Your task to perform on an android device: Go to internet settings Image 0: 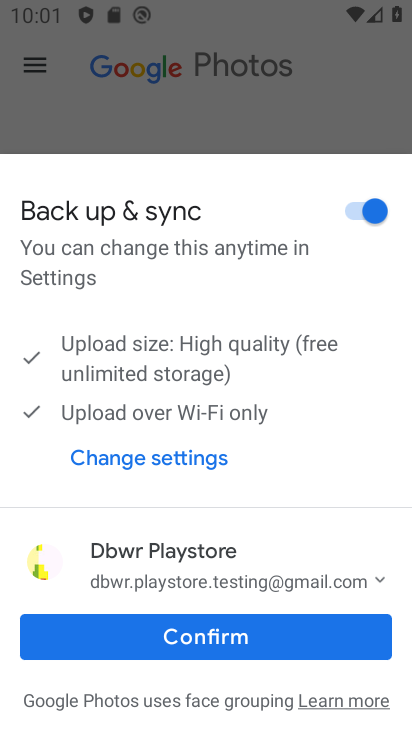
Step 0: press home button
Your task to perform on an android device: Go to internet settings Image 1: 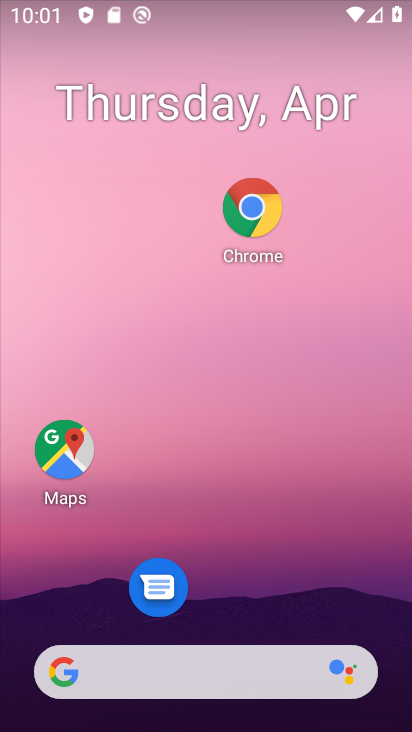
Step 1: drag from (241, 346) to (241, 41)
Your task to perform on an android device: Go to internet settings Image 2: 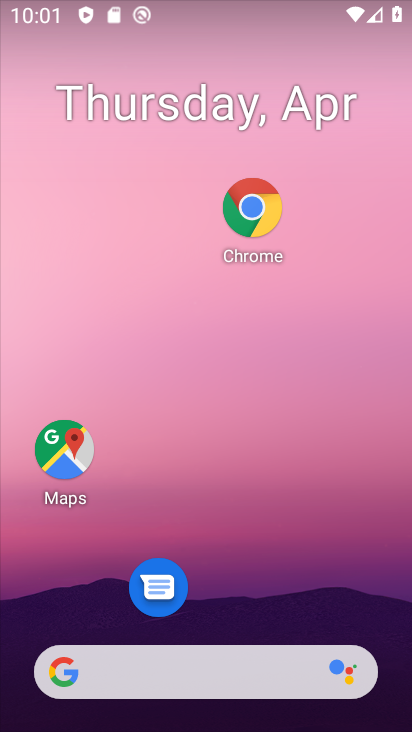
Step 2: drag from (213, 578) to (243, 0)
Your task to perform on an android device: Go to internet settings Image 3: 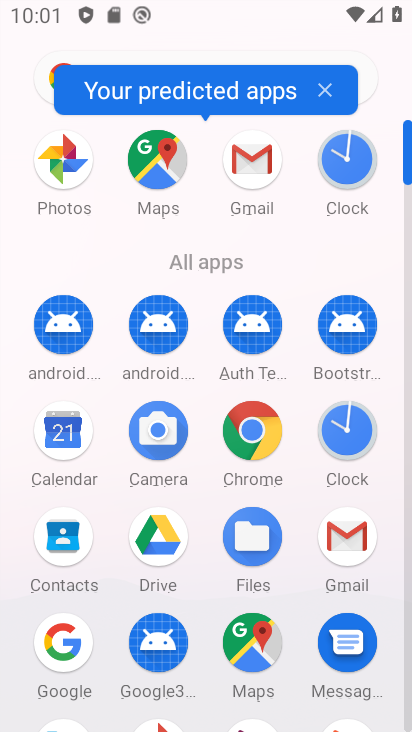
Step 3: drag from (192, 619) to (207, 230)
Your task to perform on an android device: Go to internet settings Image 4: 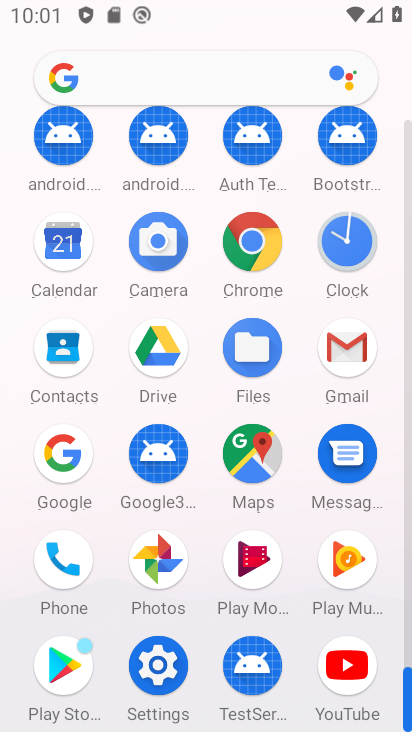
Step 4: click (173, 666)
Your task to perform on an android device: Go to internet settings Image 5: 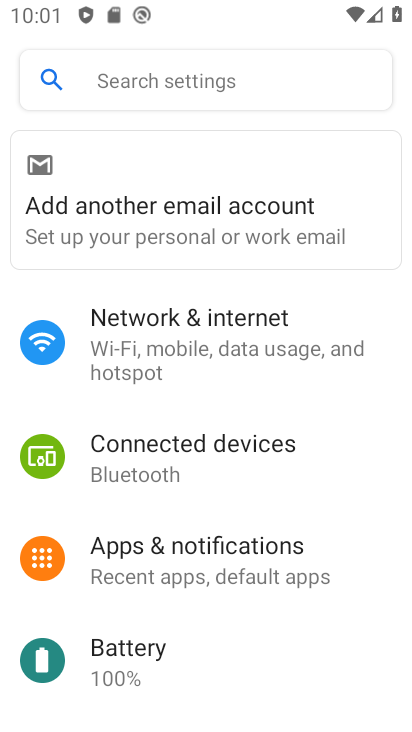
Step 5: drag from (190, 610) to (217, 389)
Your task to perform on an android device: Go to internet settings Image 6: 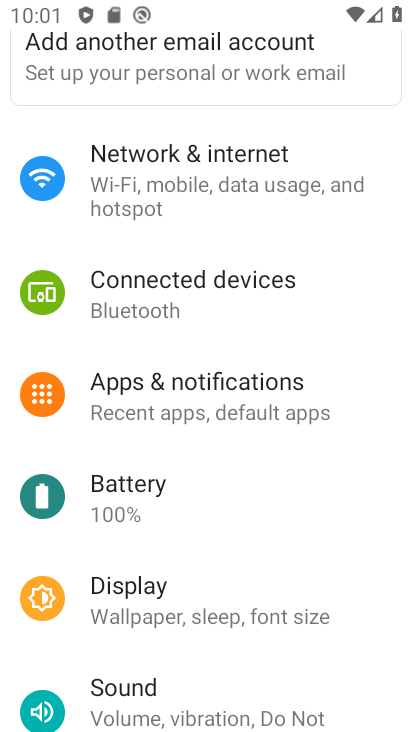
Step 6: click (222, 169)
Your task to perform on an android device: Go to internet settings Image 7: 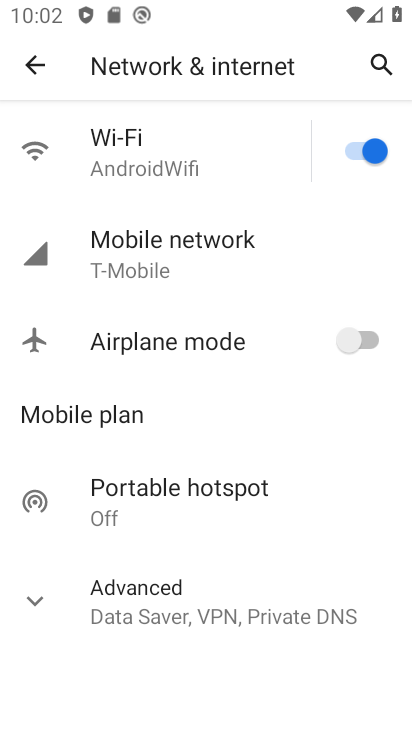
Step 7: task complete